Your task to perform on an android device: see sites visited before in the chrome app Image 0: 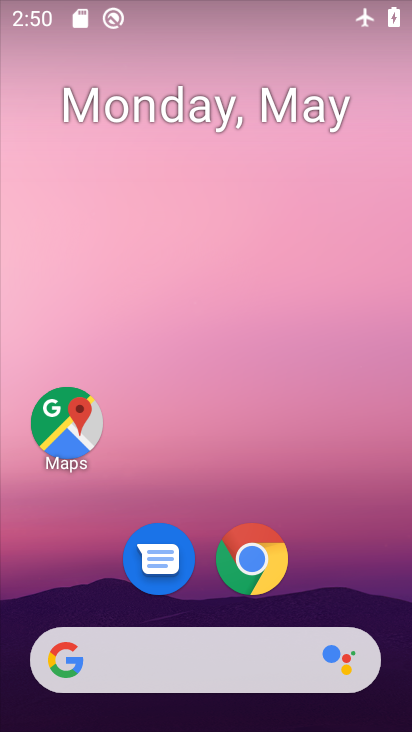
Step 0: drag from (287, 599) to (248, 227)
Your task to perform on an android device: see sites visited before in the chrome app Image 1: 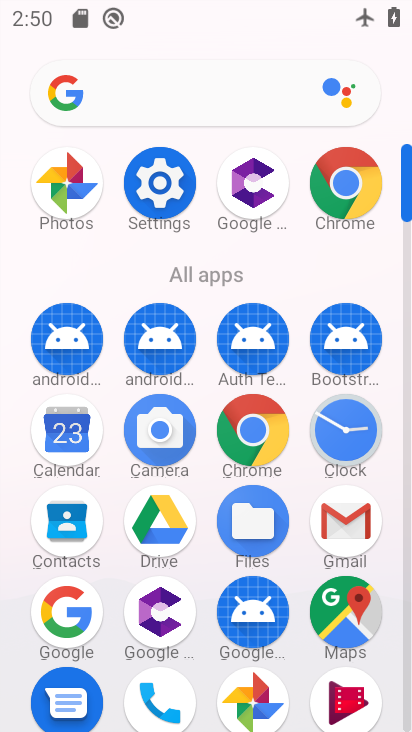
Step 1: press home button
Your task to perform on an android device: see sites visited before in the chrome app Image 2: 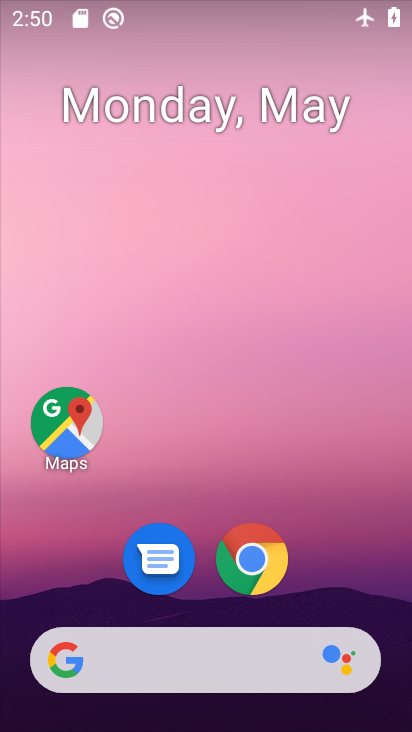
Step 2: drag from (325, 585) to (225, 111)
Your task to perform on an android device: see sites visited before in the chrome app Image 3: 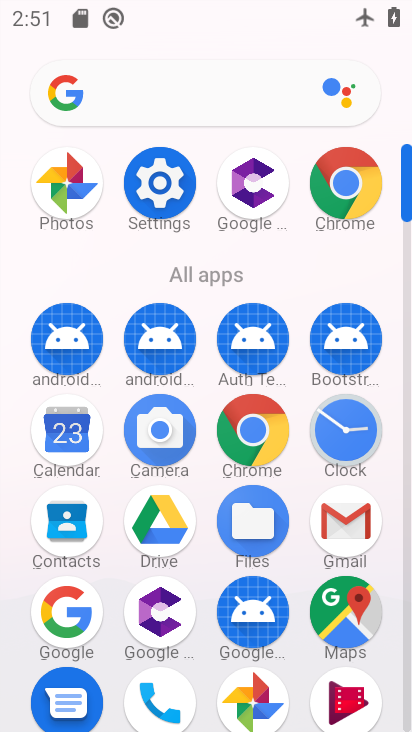
Step 3: click (356, 182)
Your task to perform on an android device: see sites visited before in the chrome app Image 4: 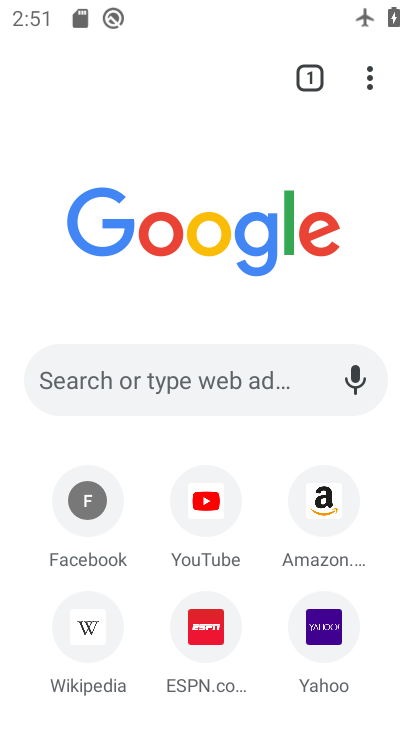
Step 4: click (368, 83)
Your task to perform on an android device: see sites visited before in the chrome app Image 5: 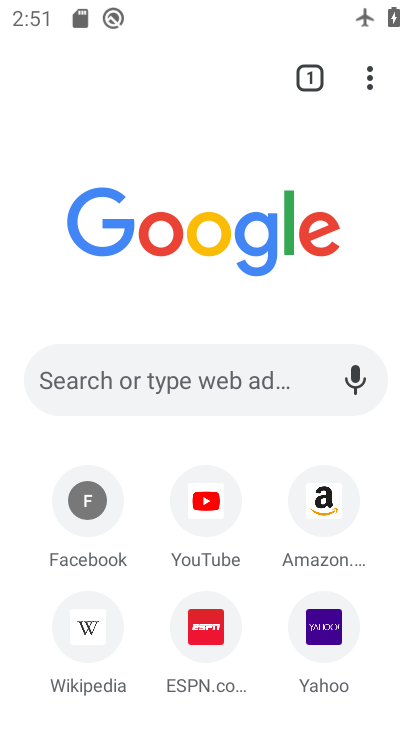
Step 5: click (367, 83)
Your task to perform on an android device: see sites visited before in the chrome app Image 6: 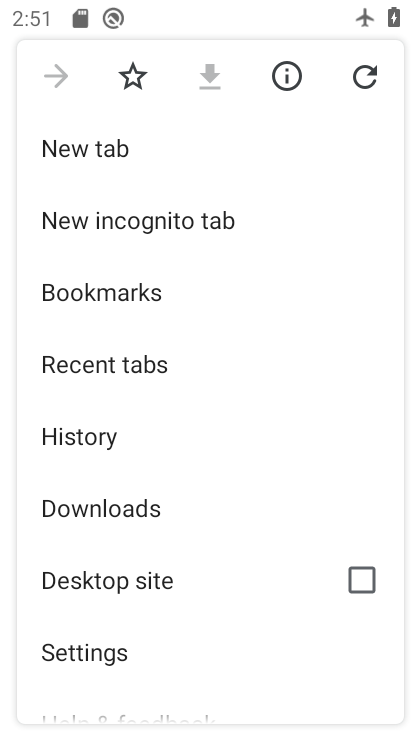
Step 6: click (91, 438)
Your task to perform on an android device: see sites visited before in the chrome app Image 7: 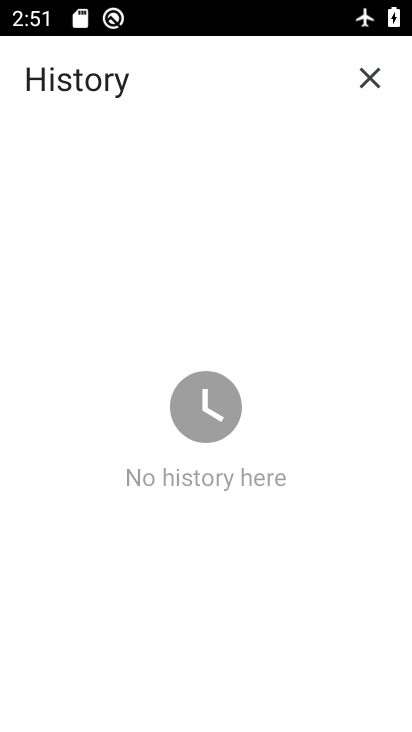
Step 7: task complete